Your task to perform on an android device: open app "Grab" Image 0: 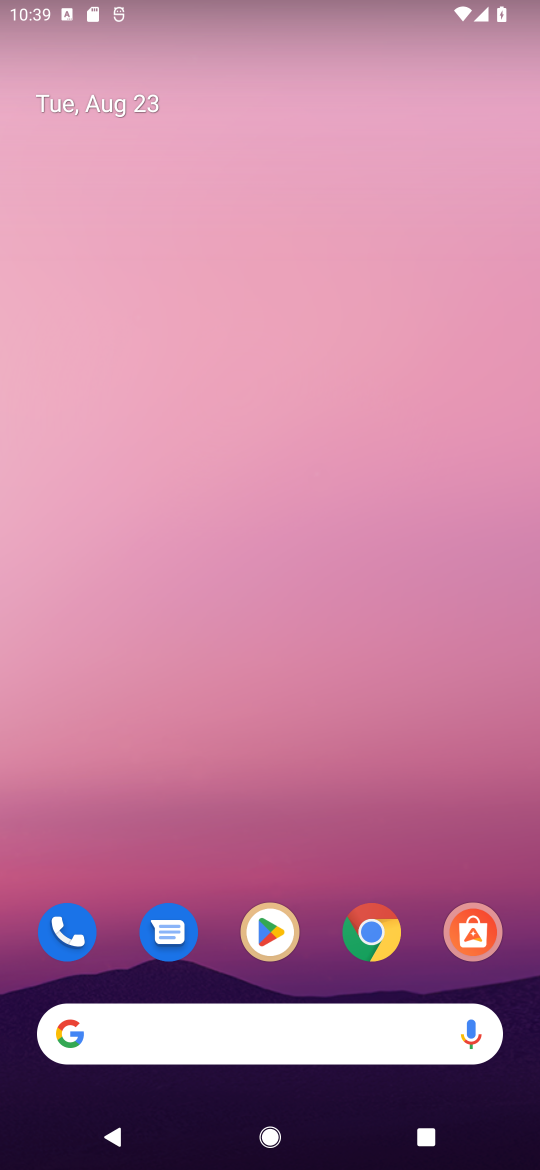
Step 0: click (279, 930)
Your task to perform on an android device: open app "Grab" Image 1: 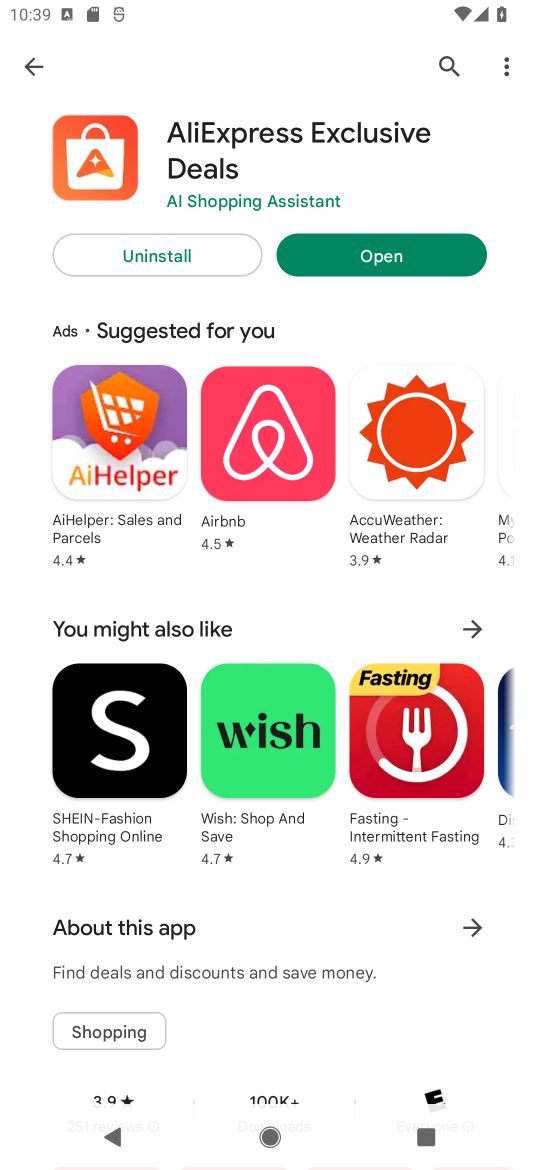
Step 1: click (441, 58)
Your task to perform on an android device: open app "Grab" Image 2: 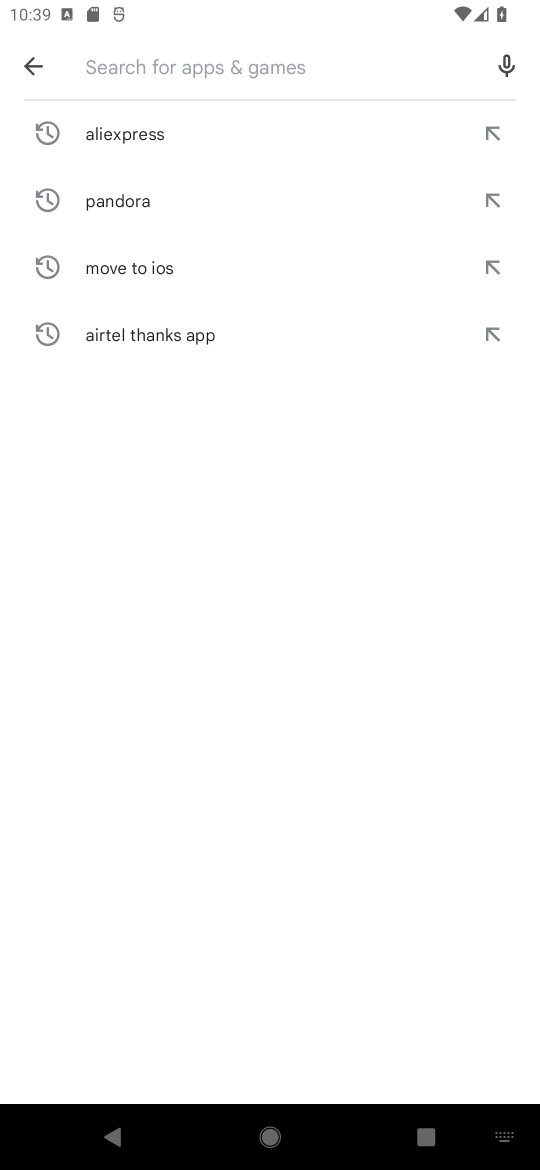
Step 2: click (198, 63)
Your task to perform on an android device: open app "Grab" Image 3: 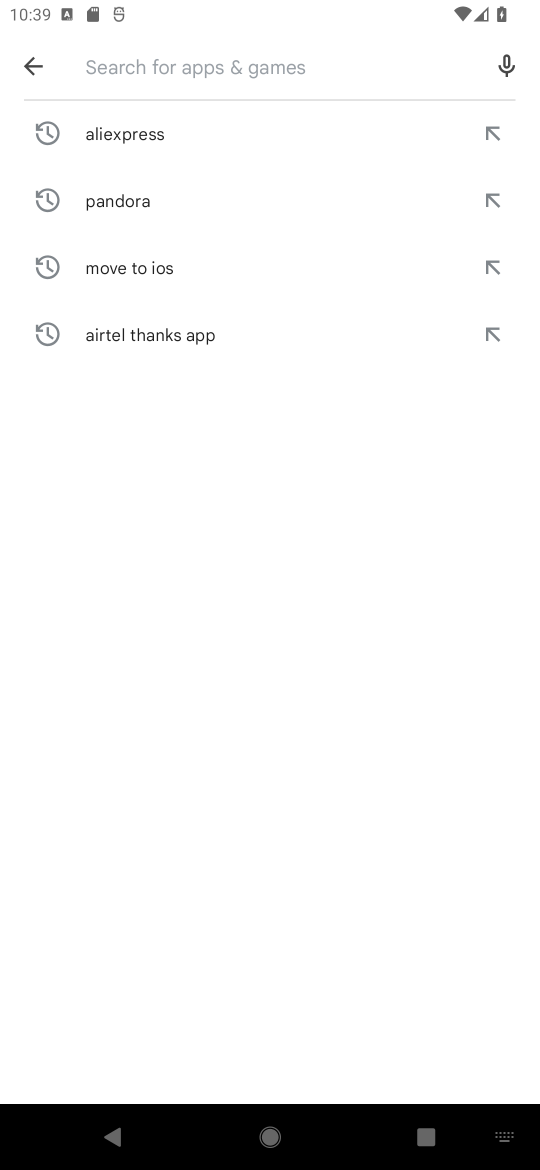
Step 3: type "Grab"
Your task to perform on an android device: open app "Grab" Image 4: 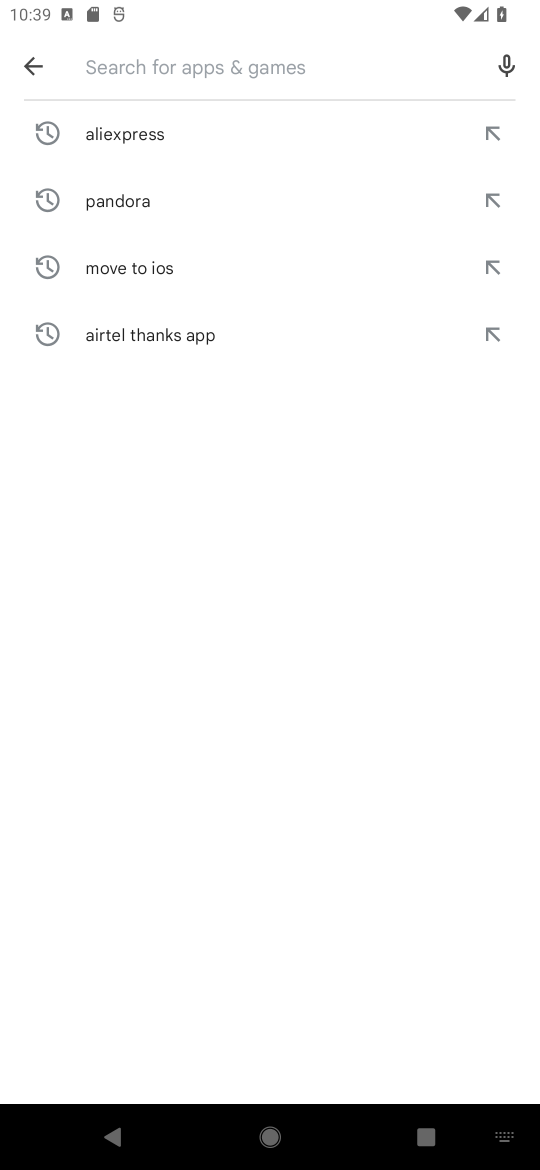
Step 4: click (205, 678)
Your task to perform on an android device: open app "Grab" Image 5: 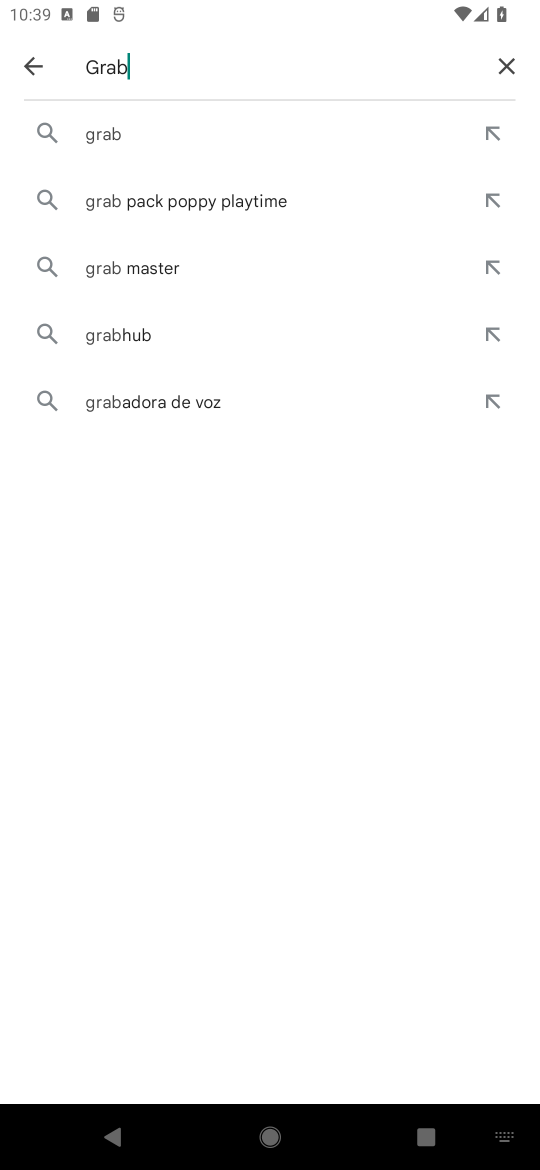
Step 5: click (120, 123)
Your task to perform on an android device: open app "Grab" Image 6: 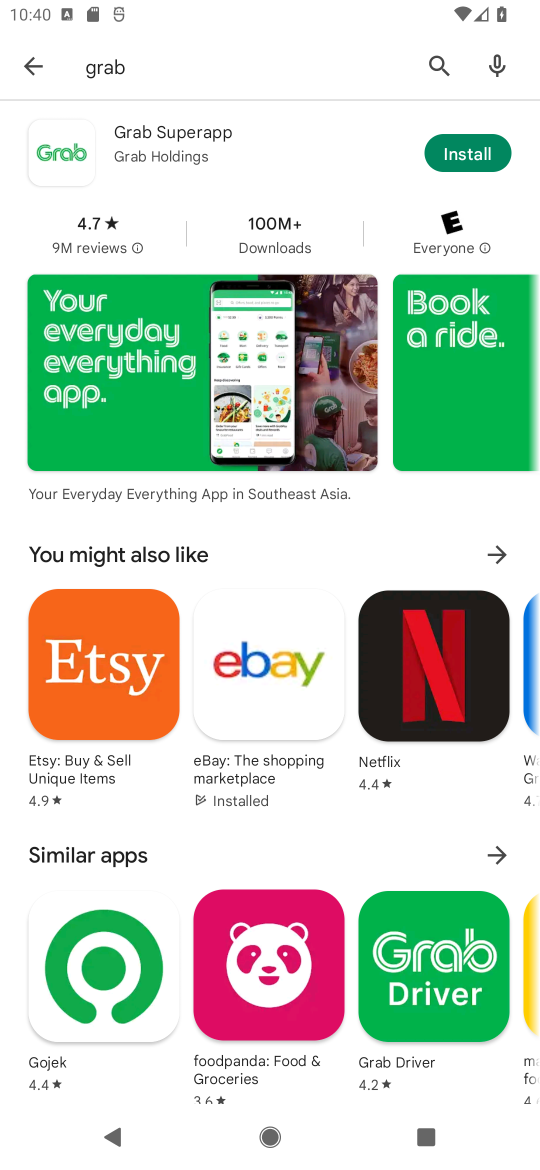
Step 6: task complete